Your task to perform on an android device: turn on showing notifications on the lock screen Image 0: 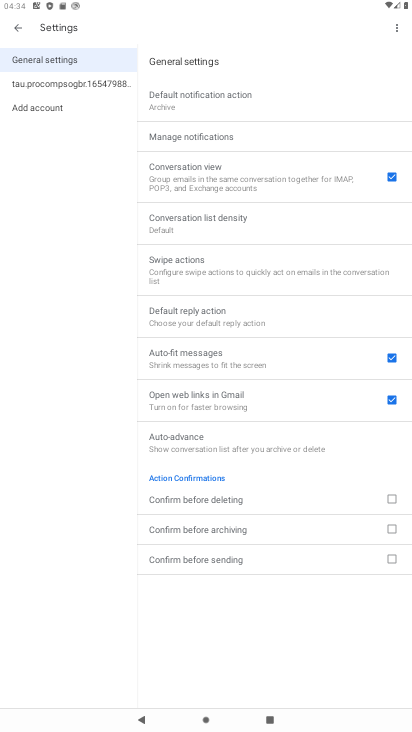
Step 0: press home button
Your task to perform on an android device: turn on showing notifications on the lock screen Image 1: 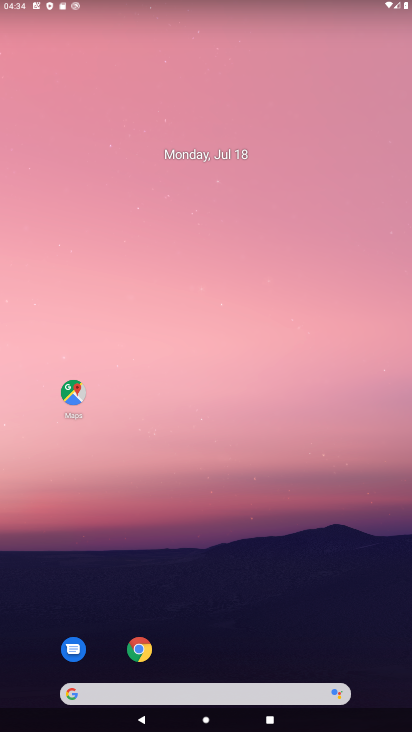
Step 1: drag from (203, 624) to (173, 109)
Your task to perform on an android device: turn on showing notifications on the lock screen Image 2: 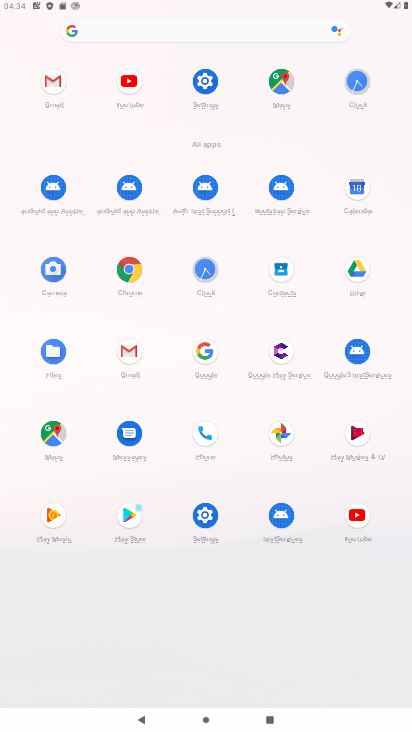
Step 2: click (204, 99)
Your task to perform on an android device: turn on showing notifications on the lock screen Image 3: 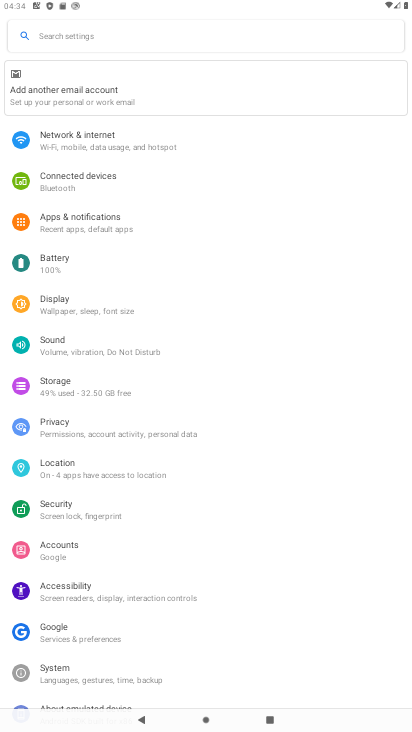
Step 3: click (140, 234)
Your task to perform on an android device: turn on showing notifications on the lock screen Image 4: 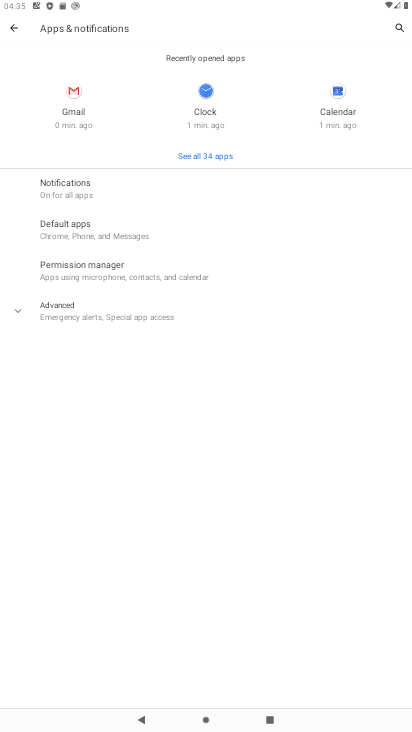
Step 4: click (97, 311)
Your task to perform on an android device: turn on showing notifications on the lock screen Image 5: 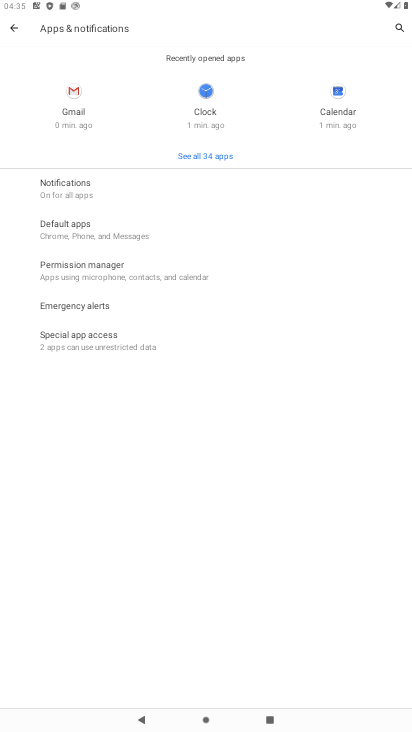
Step 5: click (117, 170)
Your task to perform on an android device: turn on showing notifications on the lock screen Image 6: 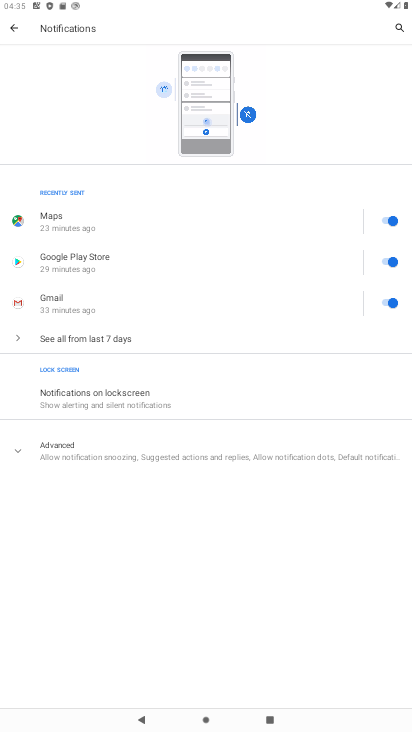
Step 6: click (59, 459)
Your task to perform on an android device: turn on showing notifications on the lock screen Image 7: 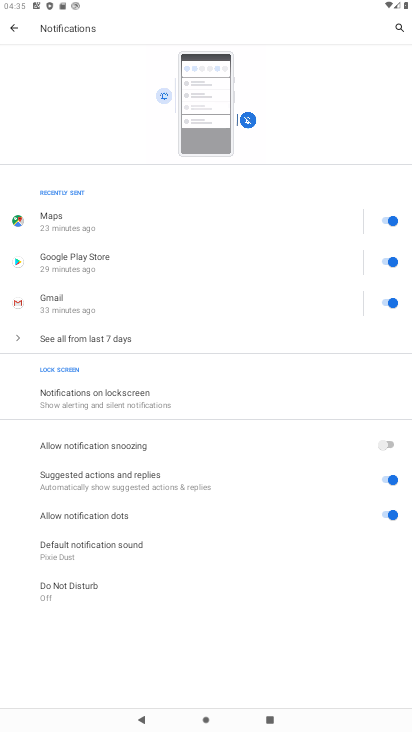
Step 7: click (92, 407)
Your task to perform on an android device: turn on showing notifications on the lock screen Image 8: 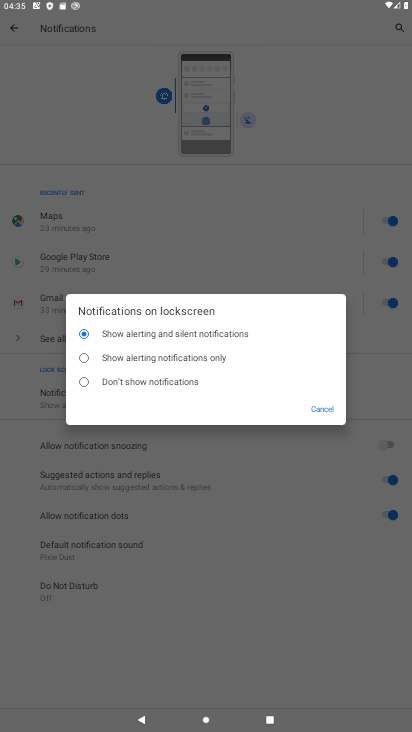
Step 8: task complete